Your task to perform on an android device: clear all cookies in the chrome app Image 0: 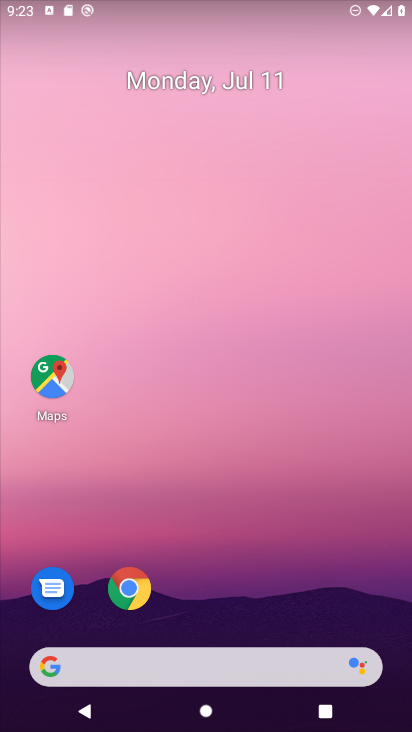
Step 0: drag from (391, 637) to (294, 69)
Your task to perform on an android device: clear all cookies in the chrome app Image 1: 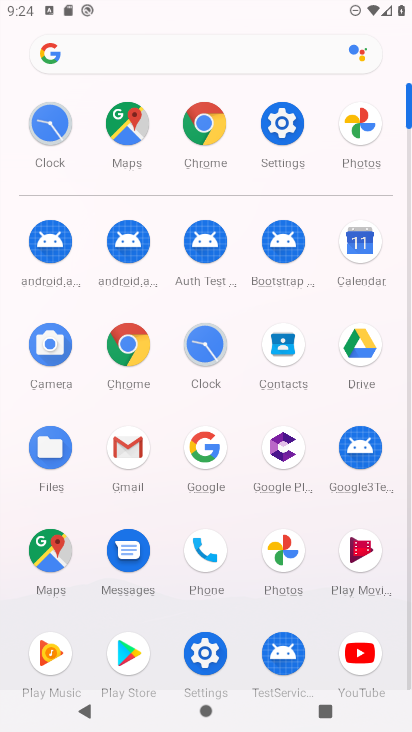
Step 1: click (141, 349)
Your task to perform on an android device: clear all cookies in the chrome app Image 2: 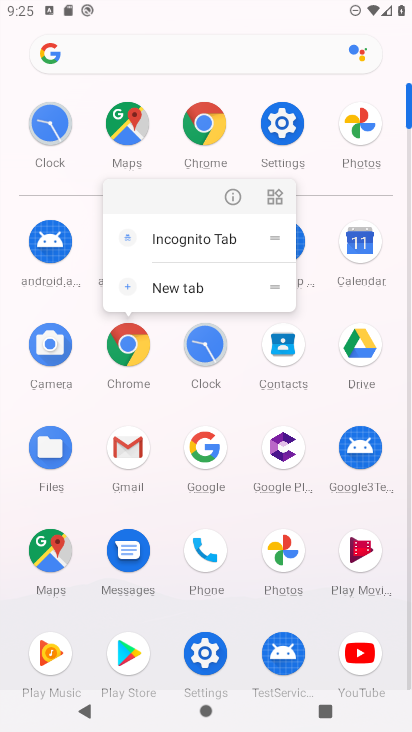
Step 2: click (123, 362)
Your task to perform on an android device: clear all cookies in the chrome app Image 3: 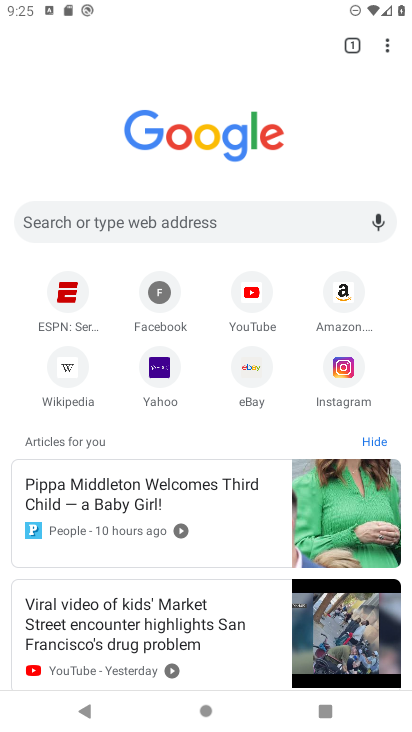
Step 3: click (386, 39)
Your task to perform on an android device: clear all cookies in the chrome app Image 4: 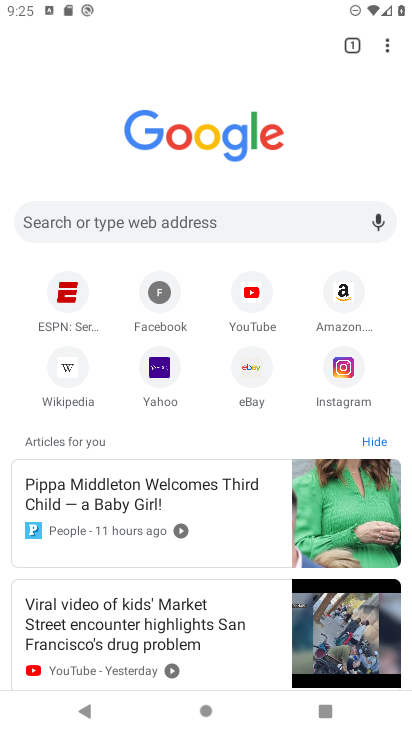
Step 4: click (386, 39)
Your task to perform on an android device: clear all cookies in the chrome app Image 5: 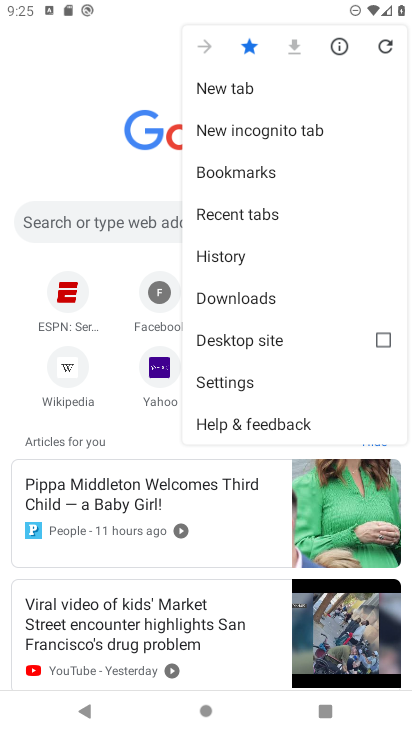
Step 5: click (241, 258)
Your task to perform on an android device: clear all cookies in the chrome app Image 6: 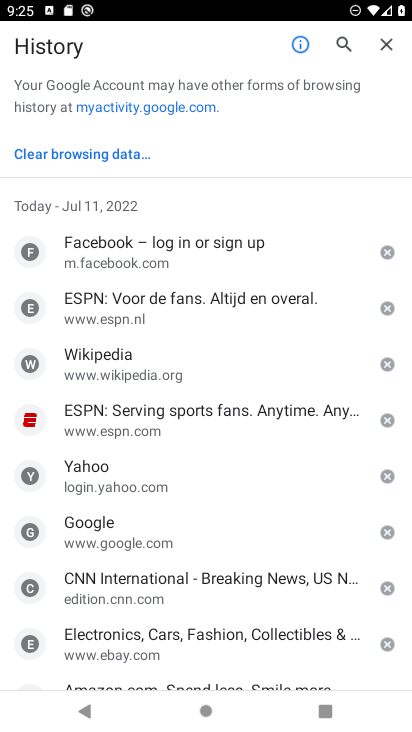
Step 6: click (86, 161)
Your task to perform on an android device: clear all cookies in the chrome app Image 7: 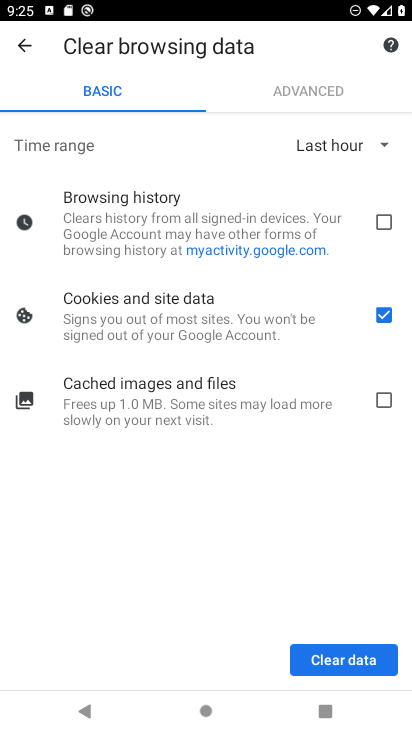
Step 7: task complete